Your task to perform on an android device: clear history in the chrome app Image 0: 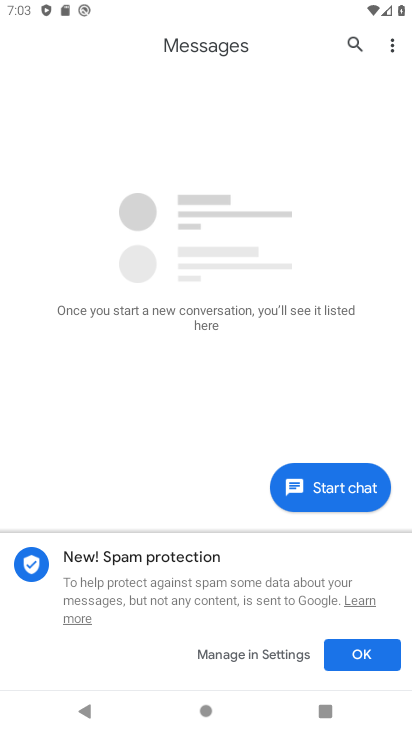
Step 0: press home button
Your task to perform on an android device: clear history in the chrome app Image 1: 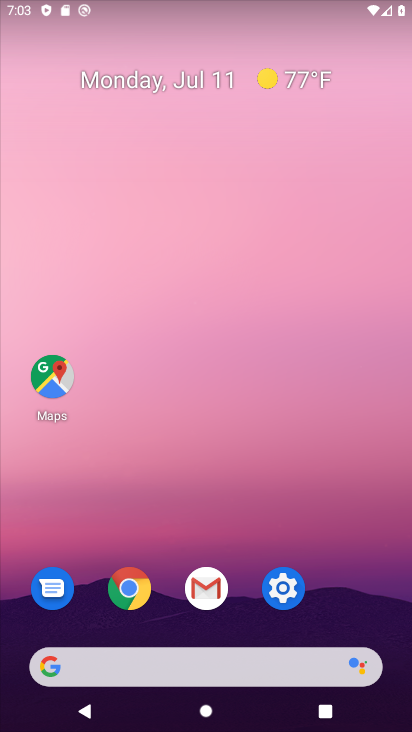
Step 1: drag from (294, 685) to (215, 162)
Your task to perform on an android device: clear history in the chrome app Image 2: 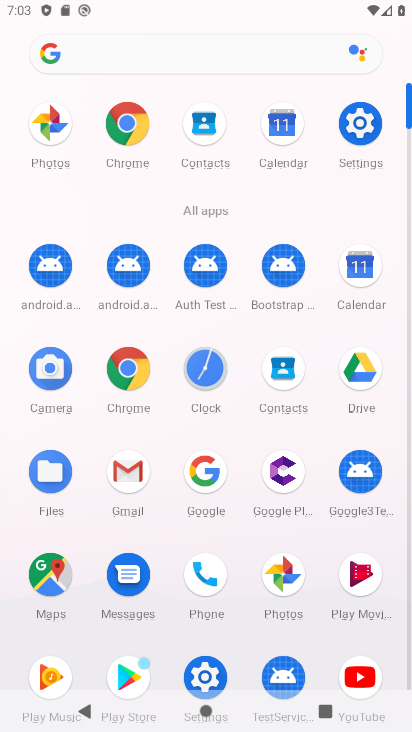
Step 2: click (115, 366)
Your task to perform on an android device: clear history in the chrome app Image 3: 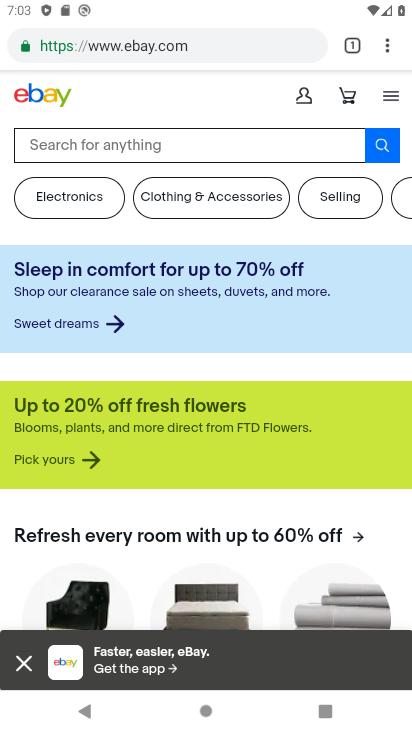
Step 3: click (390, 49)
Your task to perform on an android device: clear history in the chrome app Image 4: 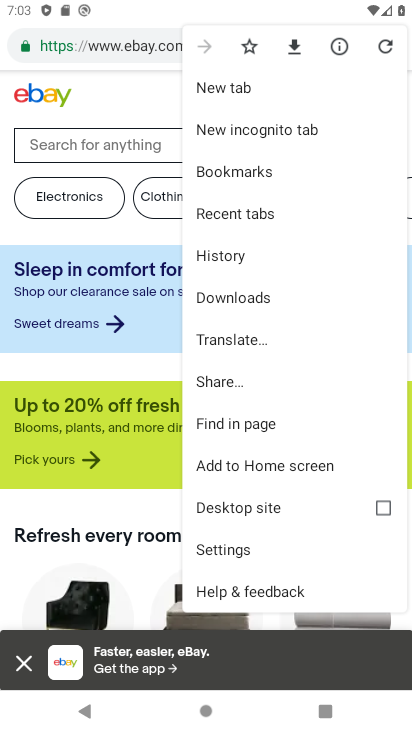
Step 4: click (235, 258)
Your task to perform on an android device: clear history in the chrome app Image 5: 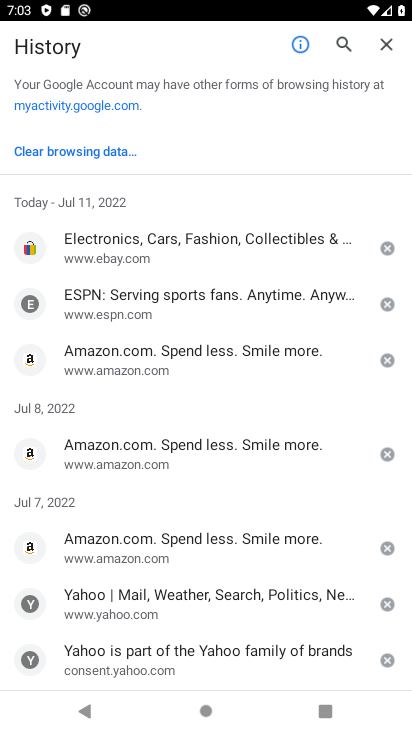
Step 5: click (82, 151)
Your task to perform on an android device: clear history in the chrome app Image 6: 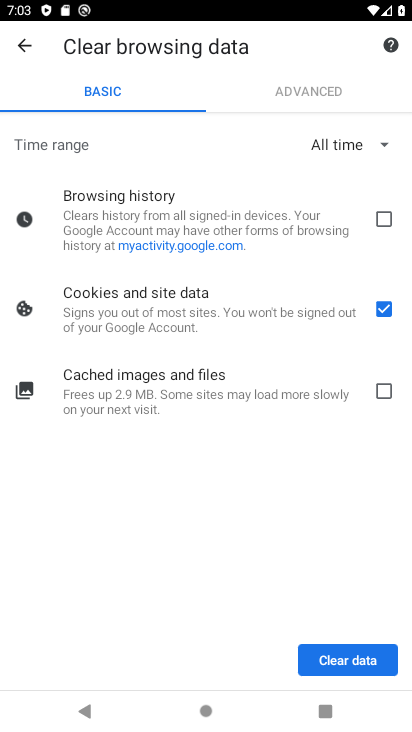
Step 6: click (377, 225)
Your task to perform on an android device: clear history in the chrome app Image 7: 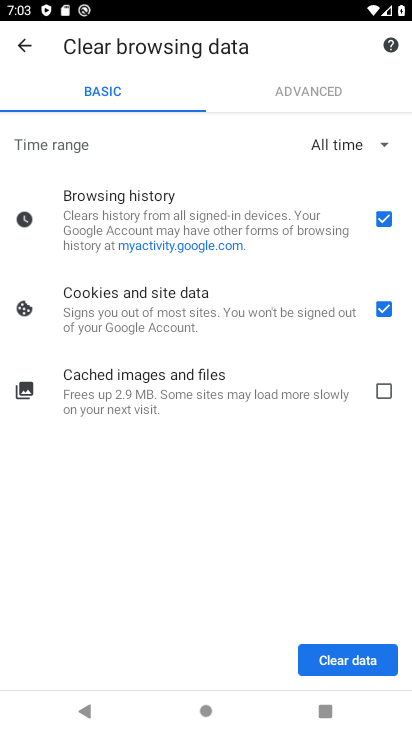
Step 7: click (391, 317)
Your task to perform on an android device: clear history in the chrome app Image 8: 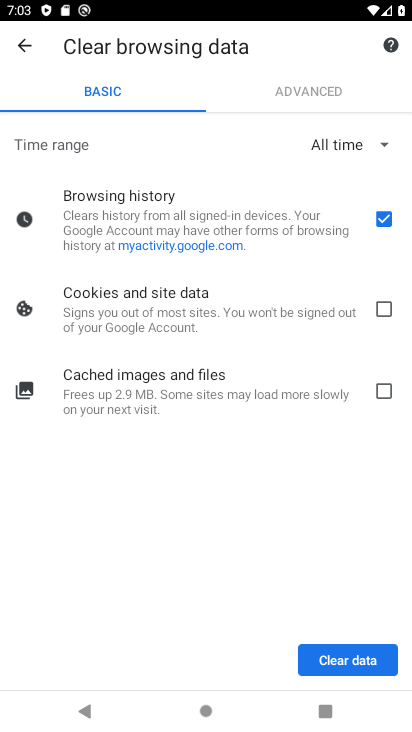
Step 8: click (343, 665)
Your task to perform on an android device: clear history in the chrome app Image 9: 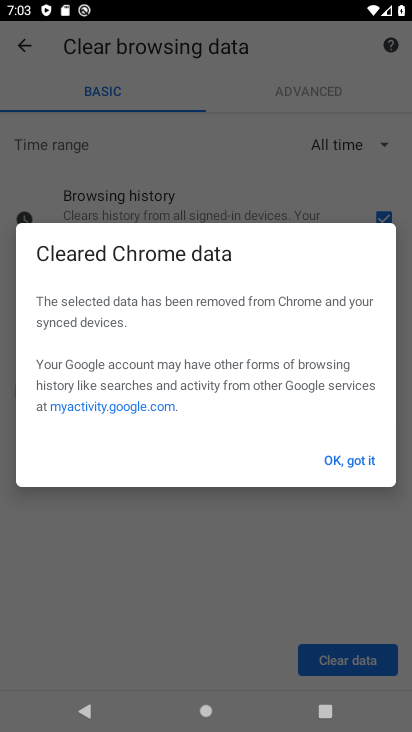
Step 9: click (343, 462)
Your task to perform on an android device: clear history in the chrome app Image 10: 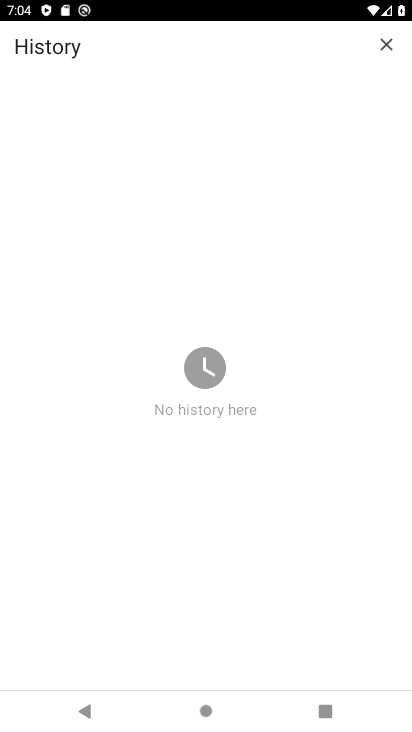
Step 10: task complete